Your task to perform on an android device: change the clock display to show seconds Image 0: 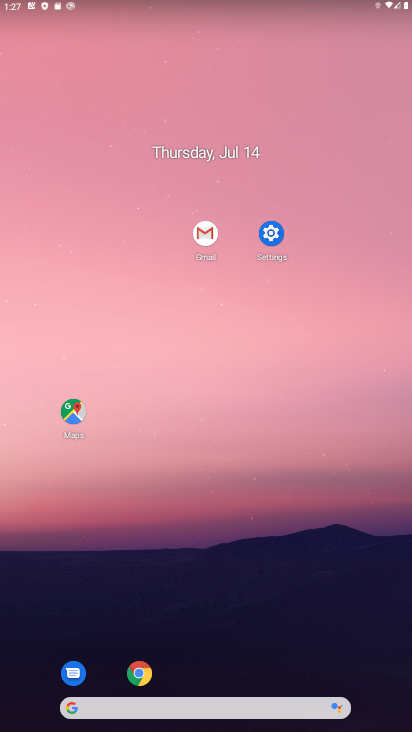
Step 0: drag from (245, 677) to (238, 130)
Your task to perform on an android device: change the clock display to show seconds Image 1: 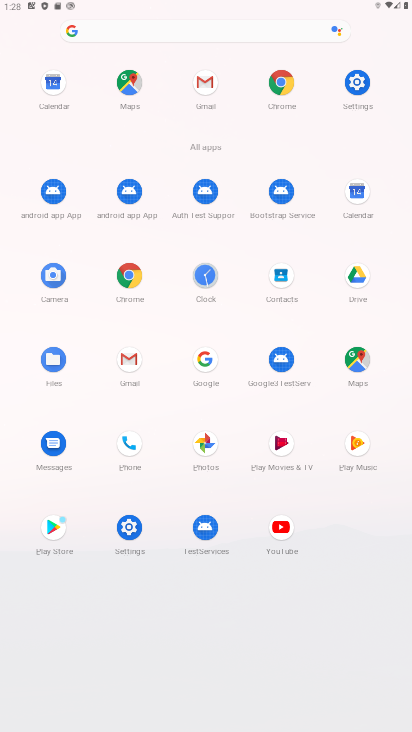
Step 1: click (204, 282)
Your task to perform on an android device: change the clock display to show seconds Image 2: 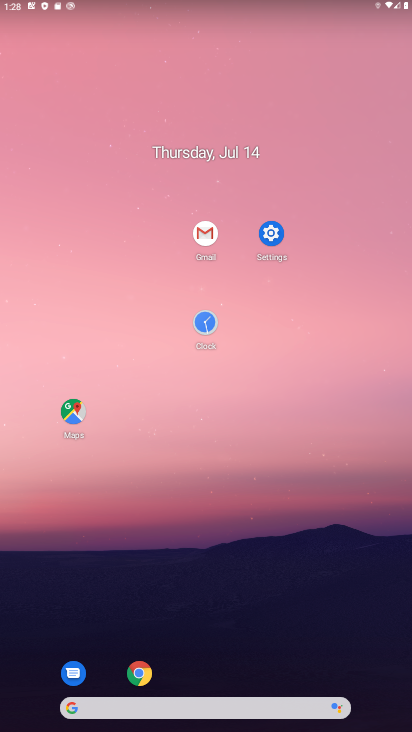
Step 2: click (207, 323)
Your task to perform on an android device: change the clock display to show seconds Image 3: 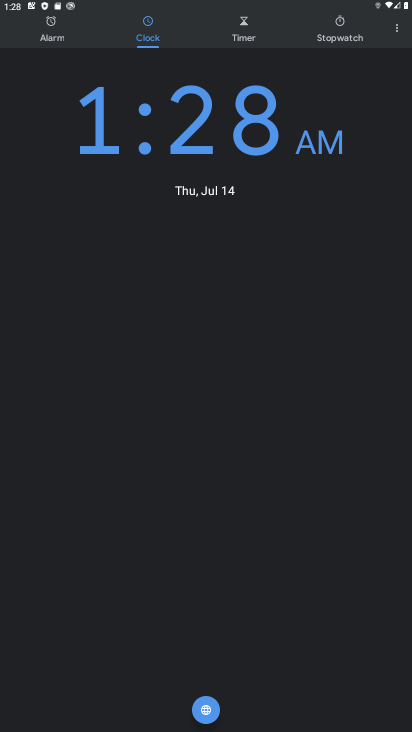
Step 3: click (399, 35)
Your task to perform on an android device: change the clock display to show seconds Image 4: 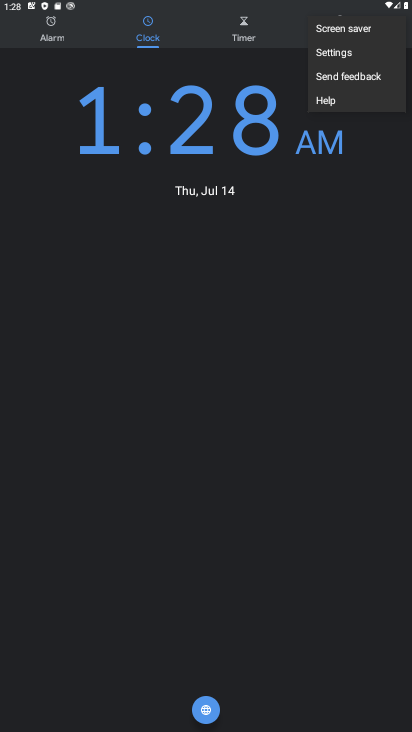
Step 4: click (320, 61)
Your task to perform on an android device: change the clock display to show seconds Image 5: 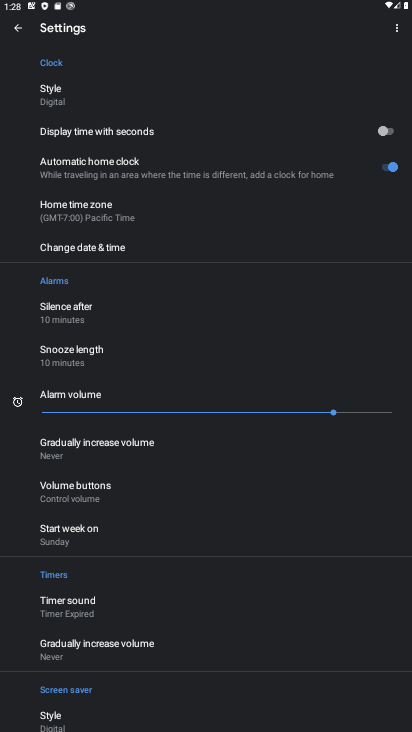
Step 5: click (397, 124)
Your task to perform on an android device: change the clock display to show seconds Image 6: 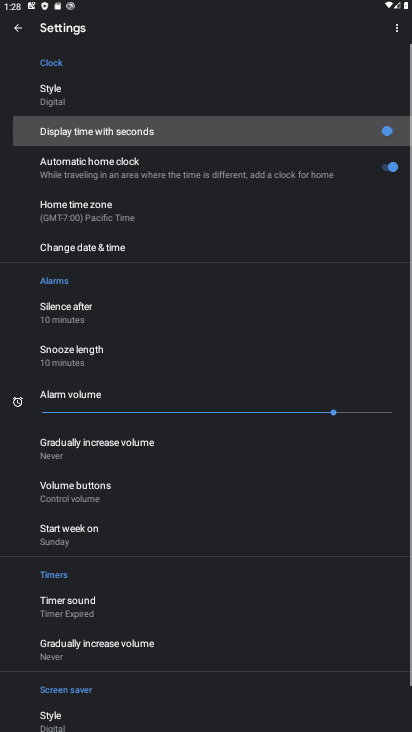
Step 6: click (386, 132)
Your task to perform on an android device: change the clock display to show seconds Image 7: 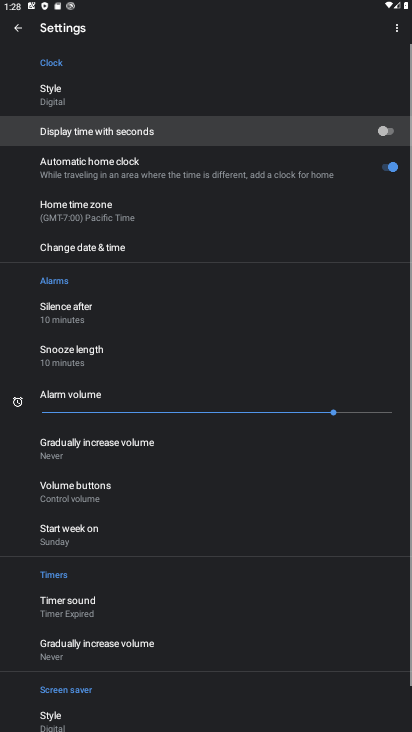
Step 7: click (394, 128)
Your task to perform on an android device: change the clock display to show seconds Image 8: 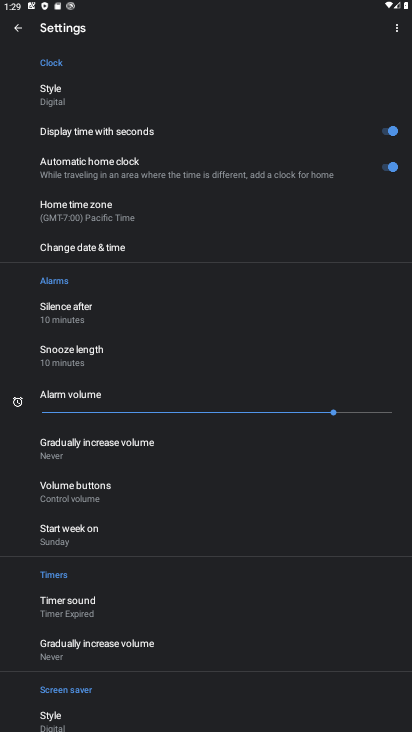
Step 8: task complete